Your task to perform on an android device: set the stopwatch Image 0: 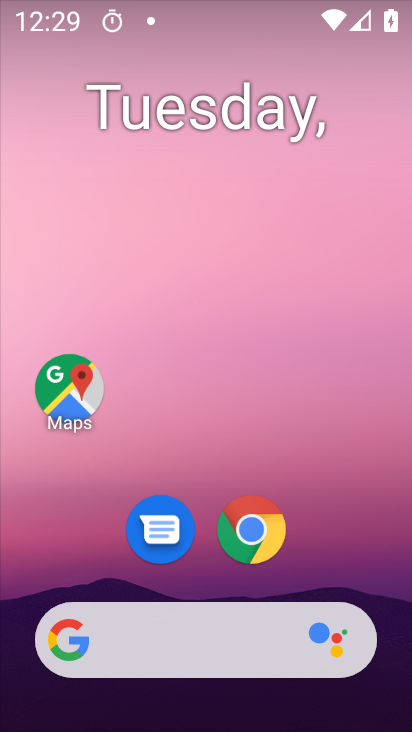
Step 0: drag from (354, 482) to (352, 0)
Your task to perform on an android device: set the stopwatch Image 1: 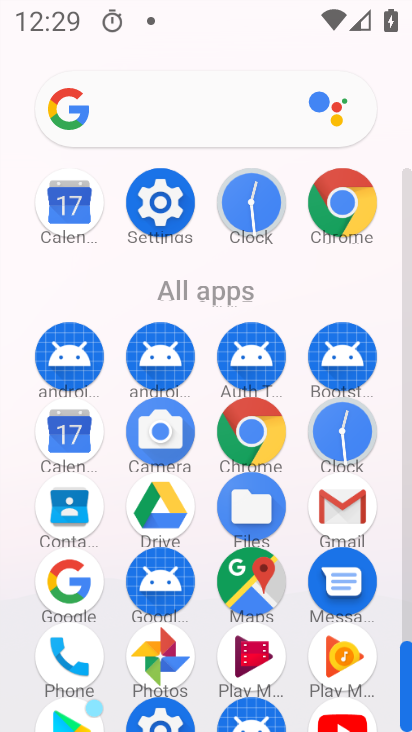
Step 1: click (252, 201)
Your task to perform on an android device: set the stopwatch Image 2: 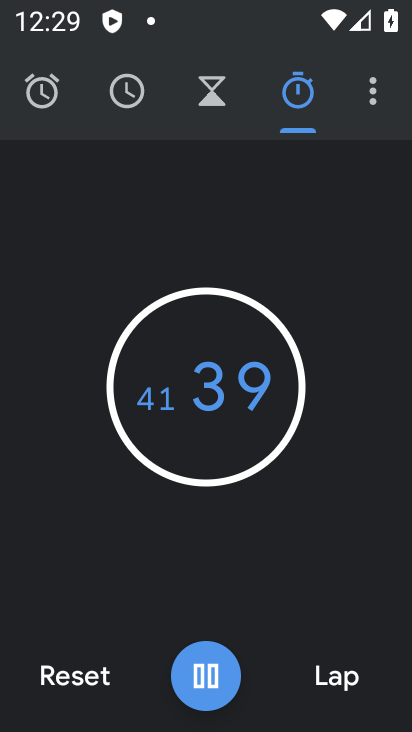
Step 2: task complete